Your task to perform on an android device: Show me the alarms in the clock app Image 0: 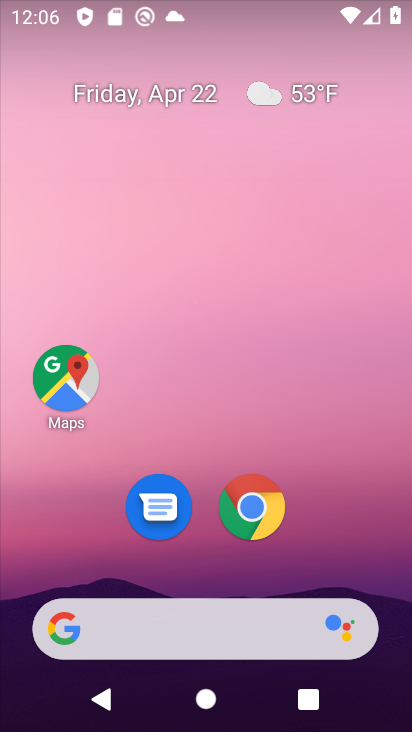
Step 0: drag from (246, 637) to (231, 99)
Your task to perform on an android device: Show me the alarms in the clock app Image 1: 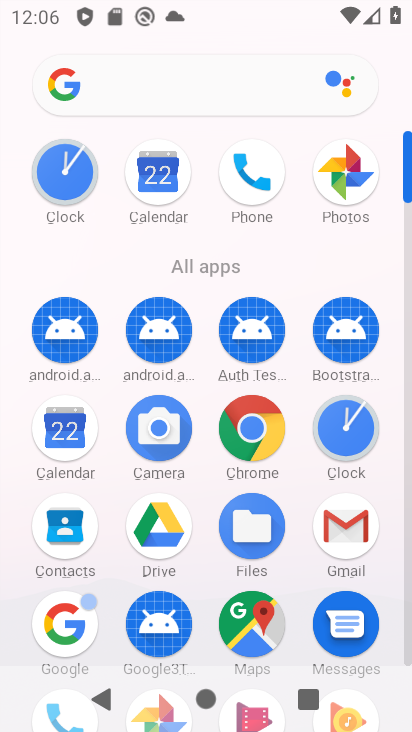
Step 1: click (332, 427)
Your task to perform on an android device: Show me the alarms in the clock app Image 2: 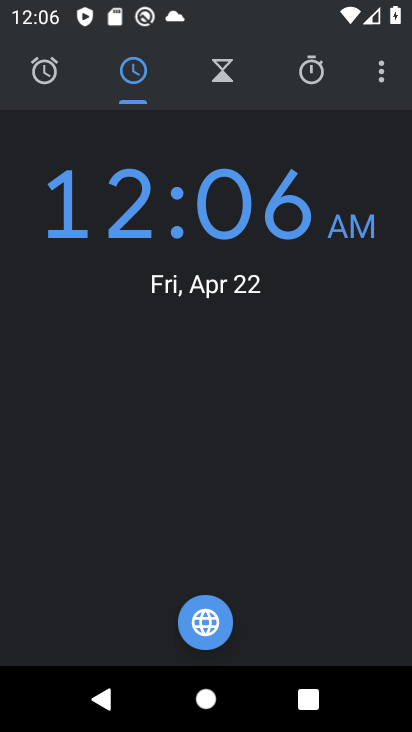
Step 2: click (37, 74)
Your task to perform on an android device: Show me the alarms in the clock app Image 3: 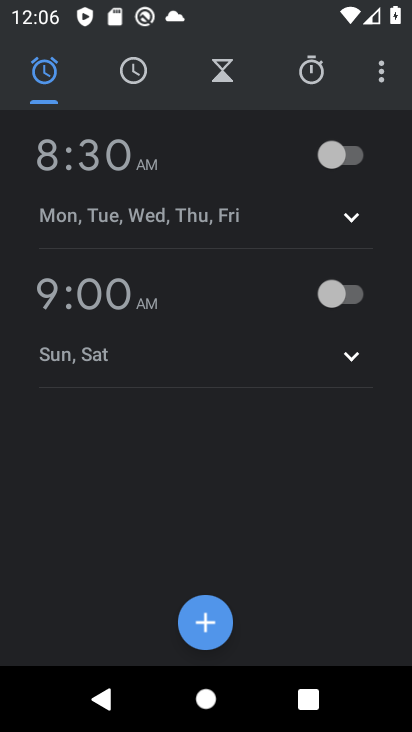
Step 3: task complete